Your task to perform on an android device: Go to network settings Image 0: 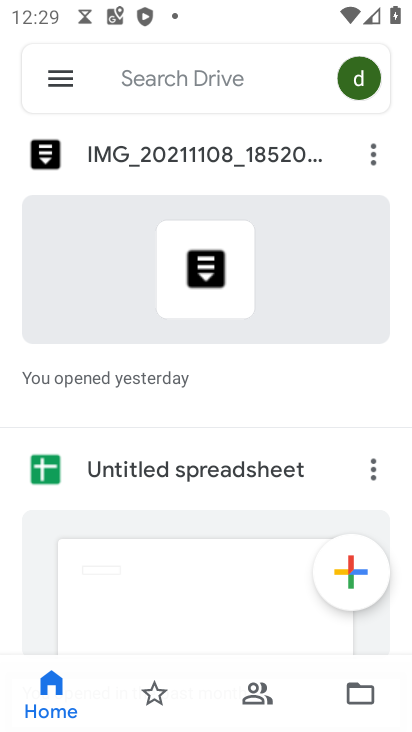
Step 0: press home button
Your task to perform on an android device: Go to network settings Image 1: 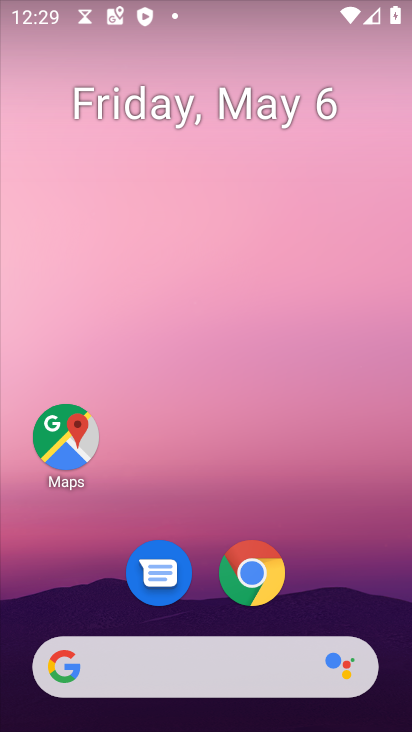
Step 1: drag from (340, 603) to (329, 241)
Your task to perform on an android device: Go to network settings Image 2: 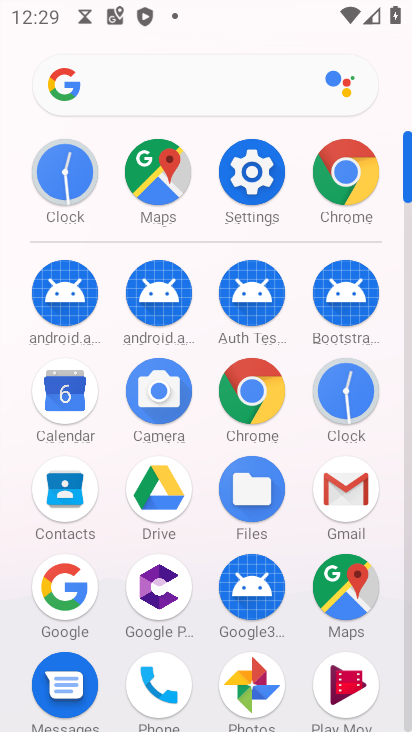
Step 2: click (256, 163)
Your task to perform on an android device: Go to network settings Image 3: 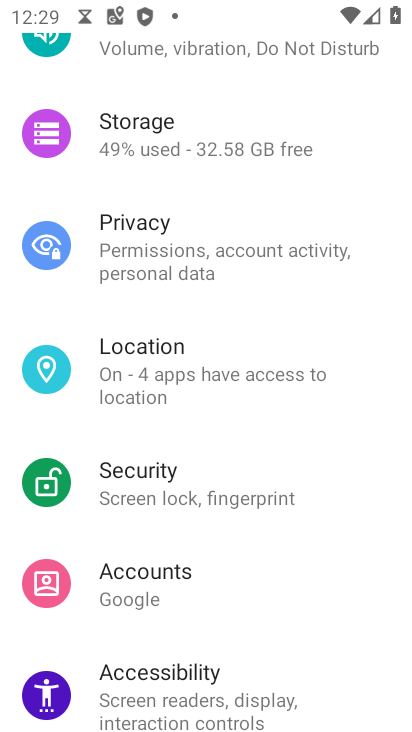
Step 3: drag from (180, 107) to (187, 633)
Your task to perform on an android device: Go to network settings Image 4: 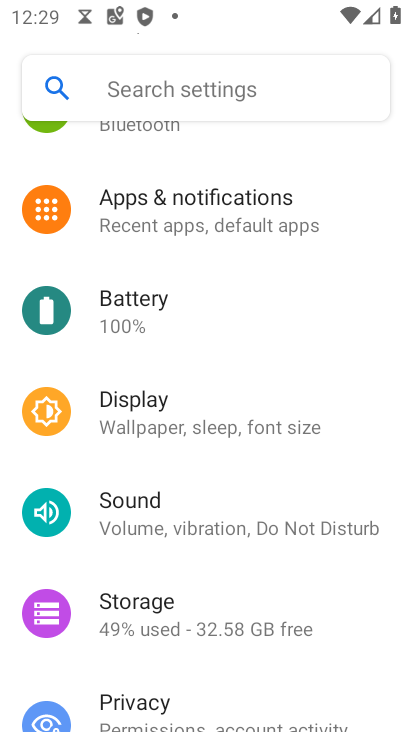
Step 4: drag from (219, 149) to (223, 677)
Your task to perform on an android device: Go to network settings Image 5: 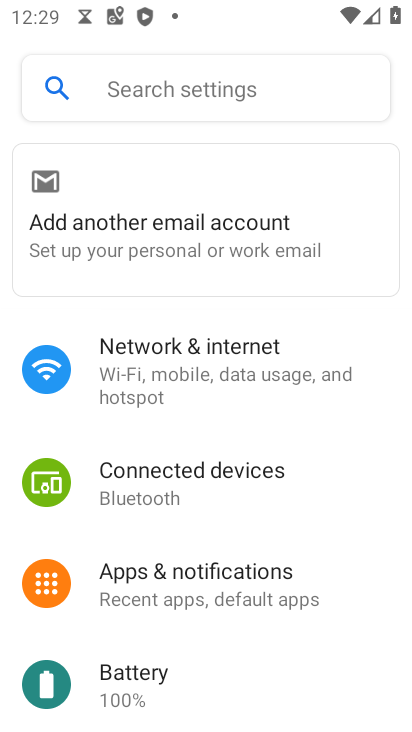
Step 5: click (183, 362)
Your task to perform on an android device: Go to network settings Image 6: 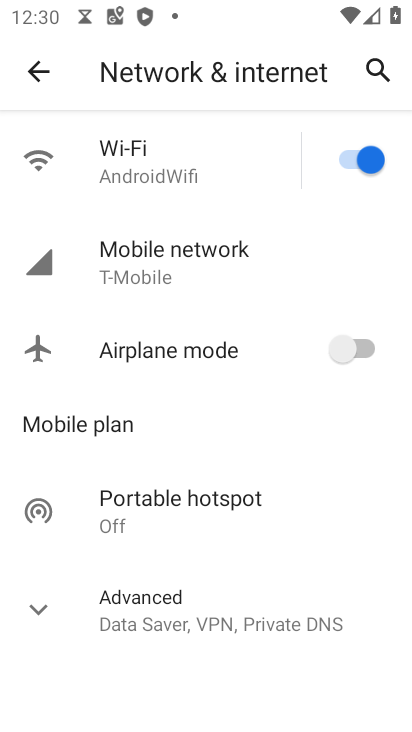
Step 6: task complete